Your task to perform on an android device: Turn off the flashlight Image 0: 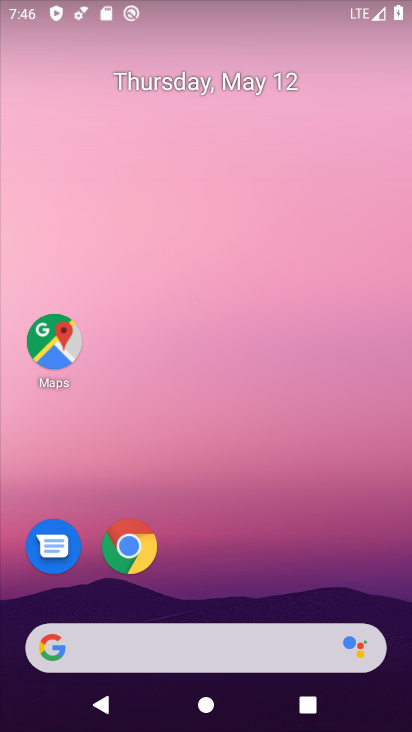
Step 0: drag from (224, 605) to (271, 95)
Your task to perform on an android device: Turn off the flashlight Image 1: 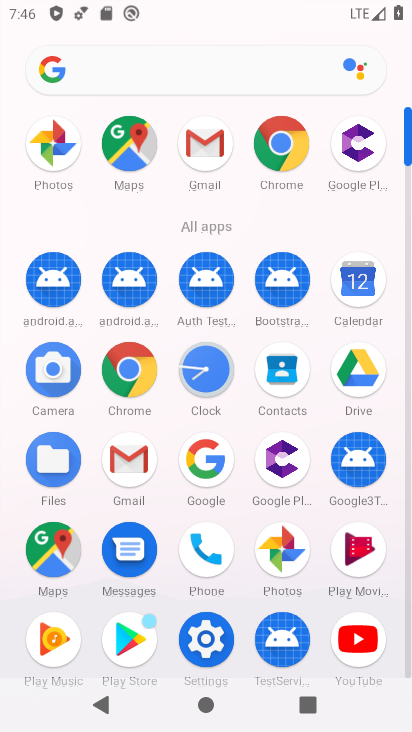
Step 1: click (210, 645)
Your task to perform on an android device: Turn off the flashlight Image 2: 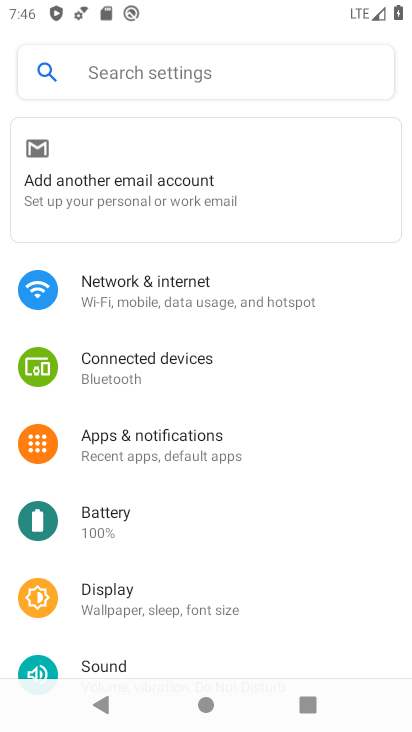
Step 2: click (114, 69)
Your task to perform on an android device: Turn off the flashlight Image 3: 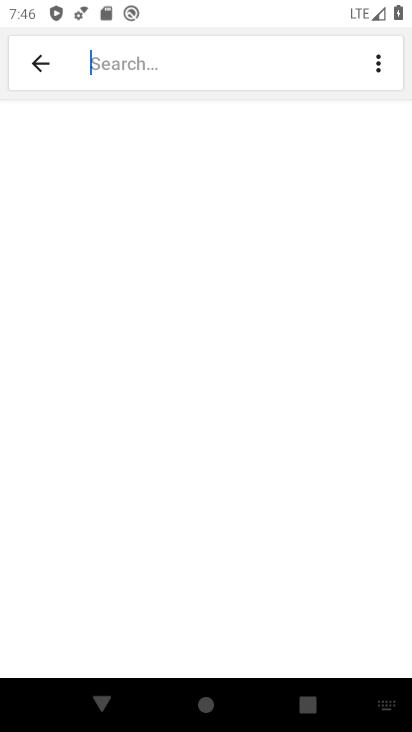
Step 3: type "flashlight"
Your task to perform on an android device: Turn off the flashlight Image 4: 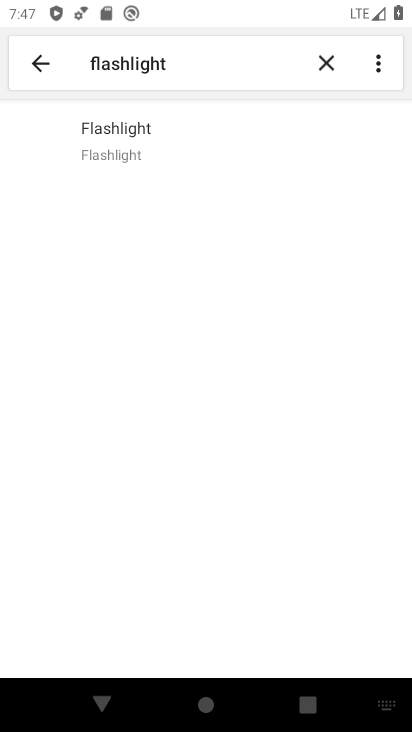
Step 4: click (104, 140)
Your task to perform on an android device: Turn off the flashlight Image 5: 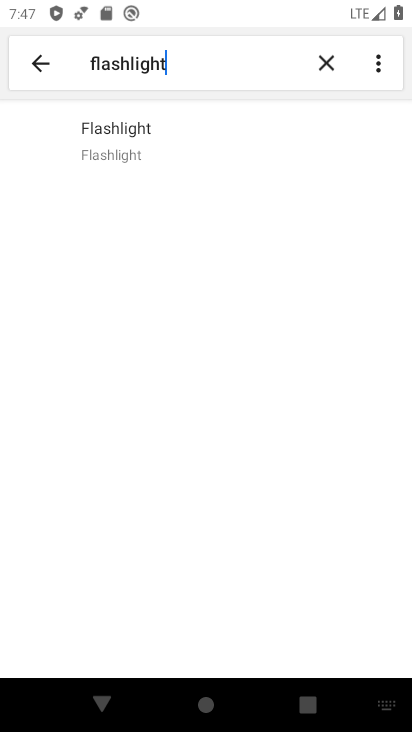
Step 5: task complete